Your task to perform on an android device: Go to ESPN.com Image 0: 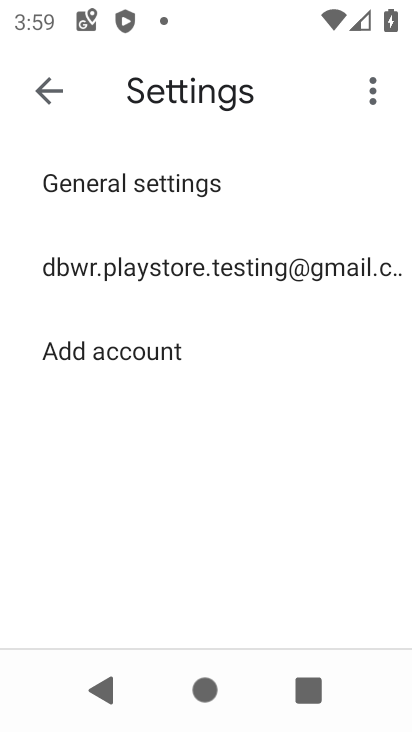
Step 0: task complete